Your task to perform on an android device: open app "Yahoo Mail" (install if not already installed) Image 0: 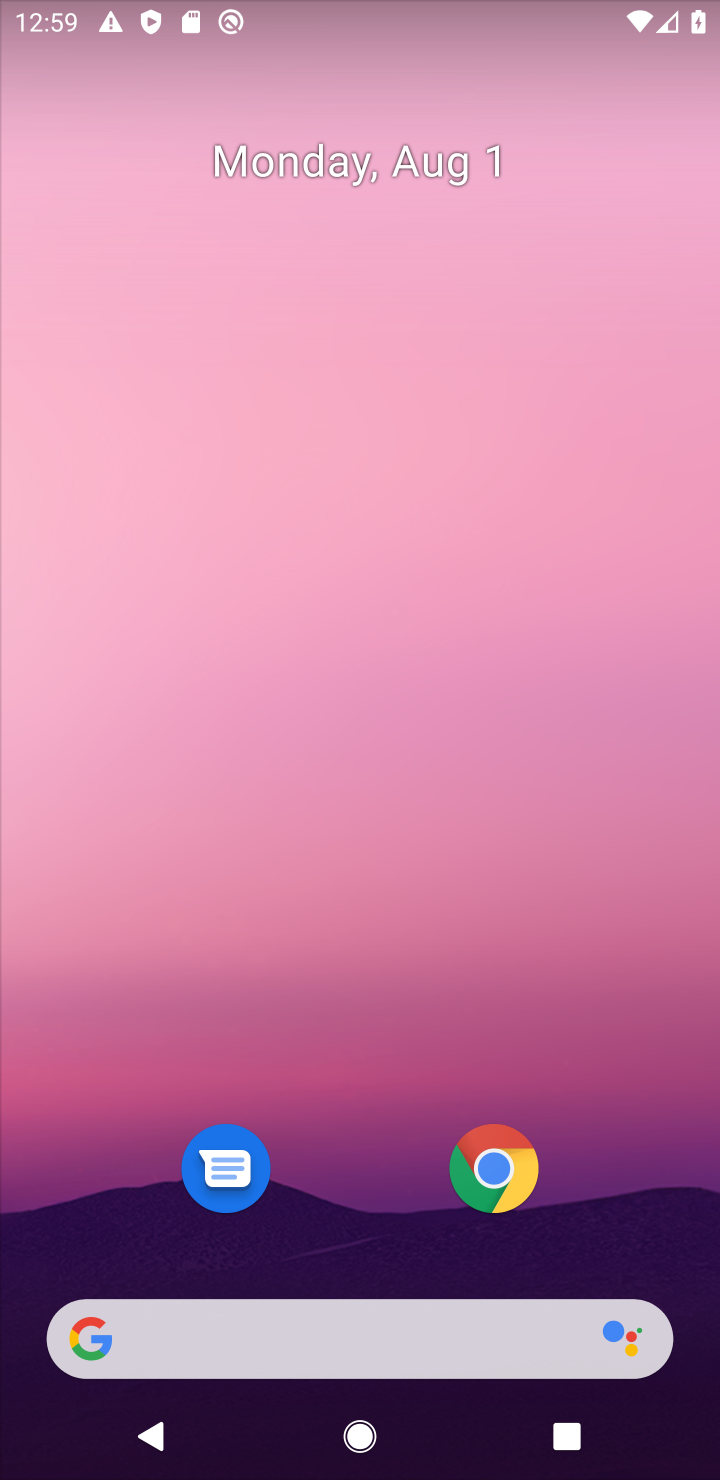
Step 0: drag from (331, 1208) to (381, 13)
Your task to perform on an android device: open app "Yahoo Mail" (install if not already installed) Image 1: 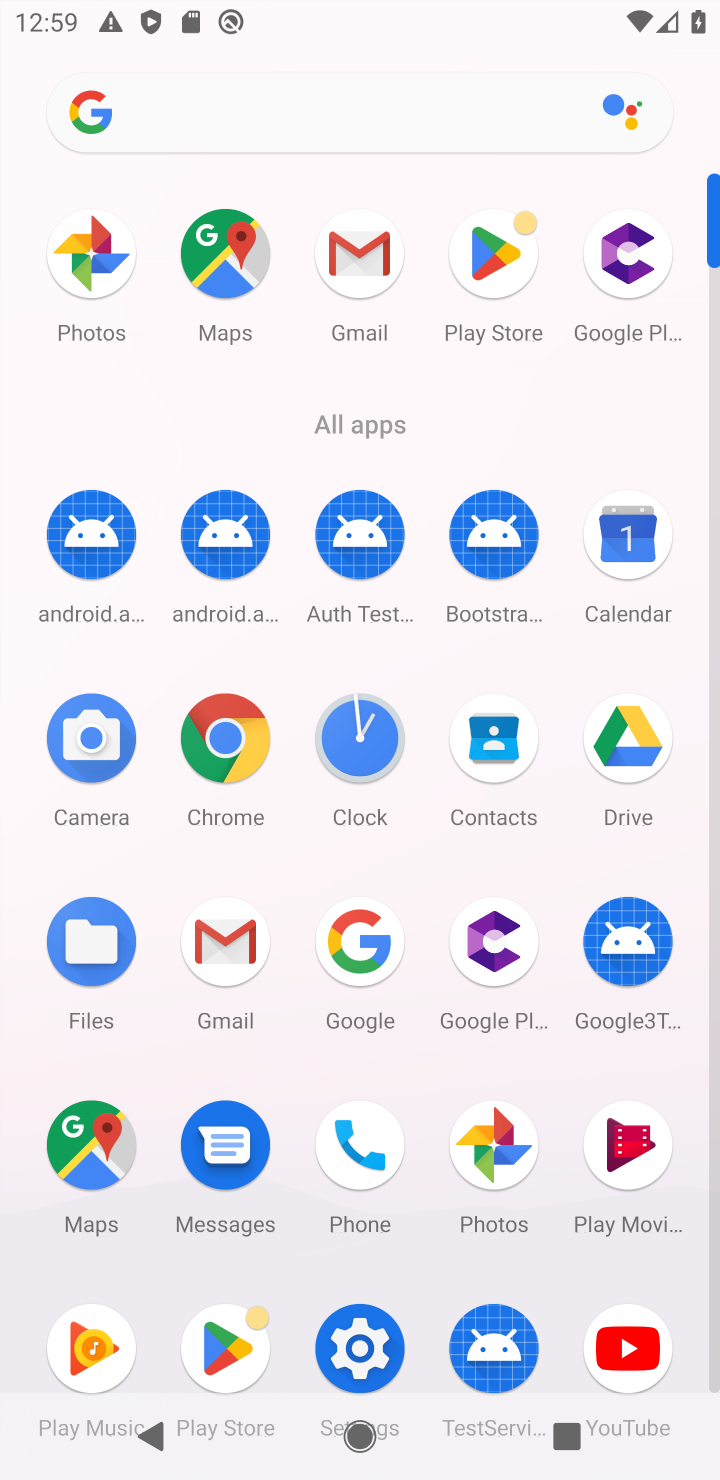
Step 1: click (485, 280)
Your task to perform on an android device: open app "Yahoo Mail" (install if not already installed) Image 2: 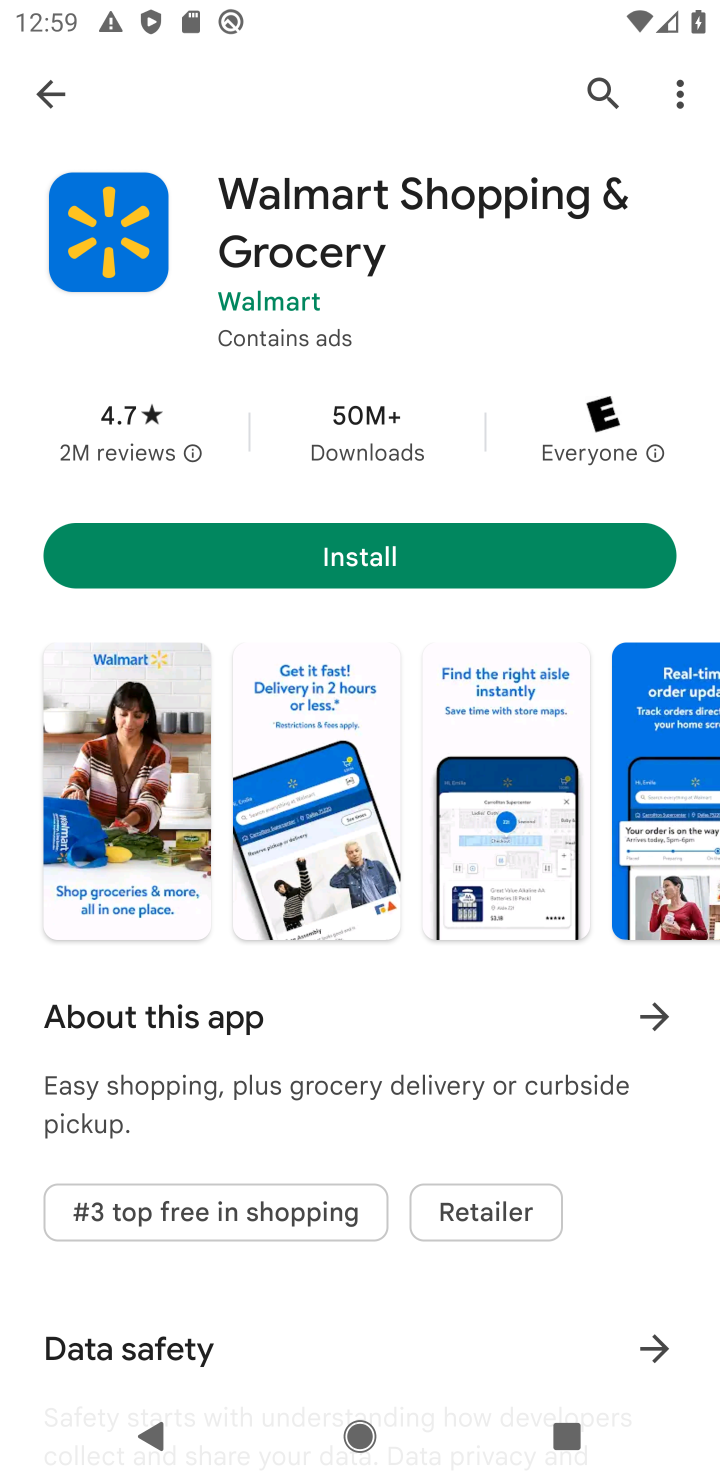
Step 2: click (593, 102)
Your task to perform on an android device: open app "Yahoo Mail" (install if not already installed) Image 3: 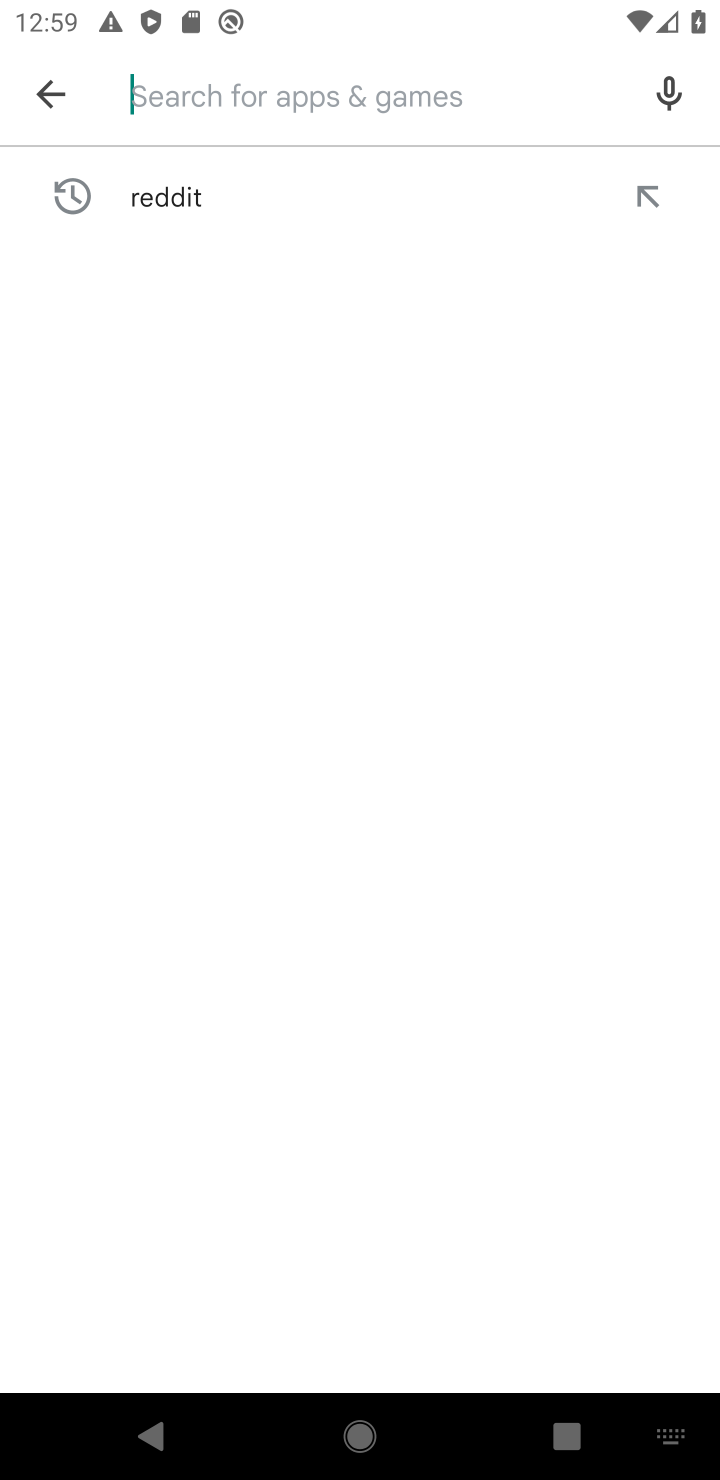
Step 3: type "yahoo mail"
Your task to perform on an android device: open app "Yahoo Mail" (install if not already installed) Image 4: 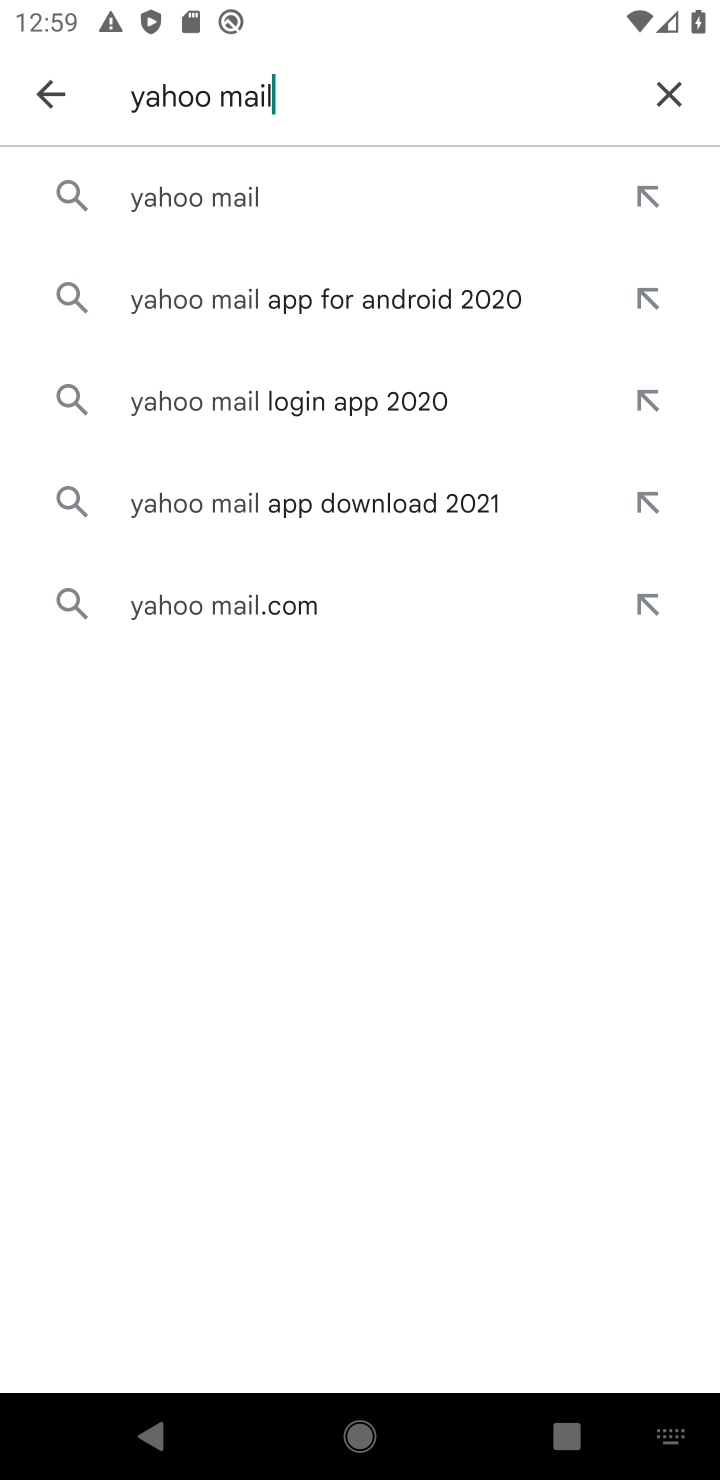
Step 4: click (375, 188)
Your task to perform on an android device: open app "Yahoo Mail" (install if not already installed) Image 5: 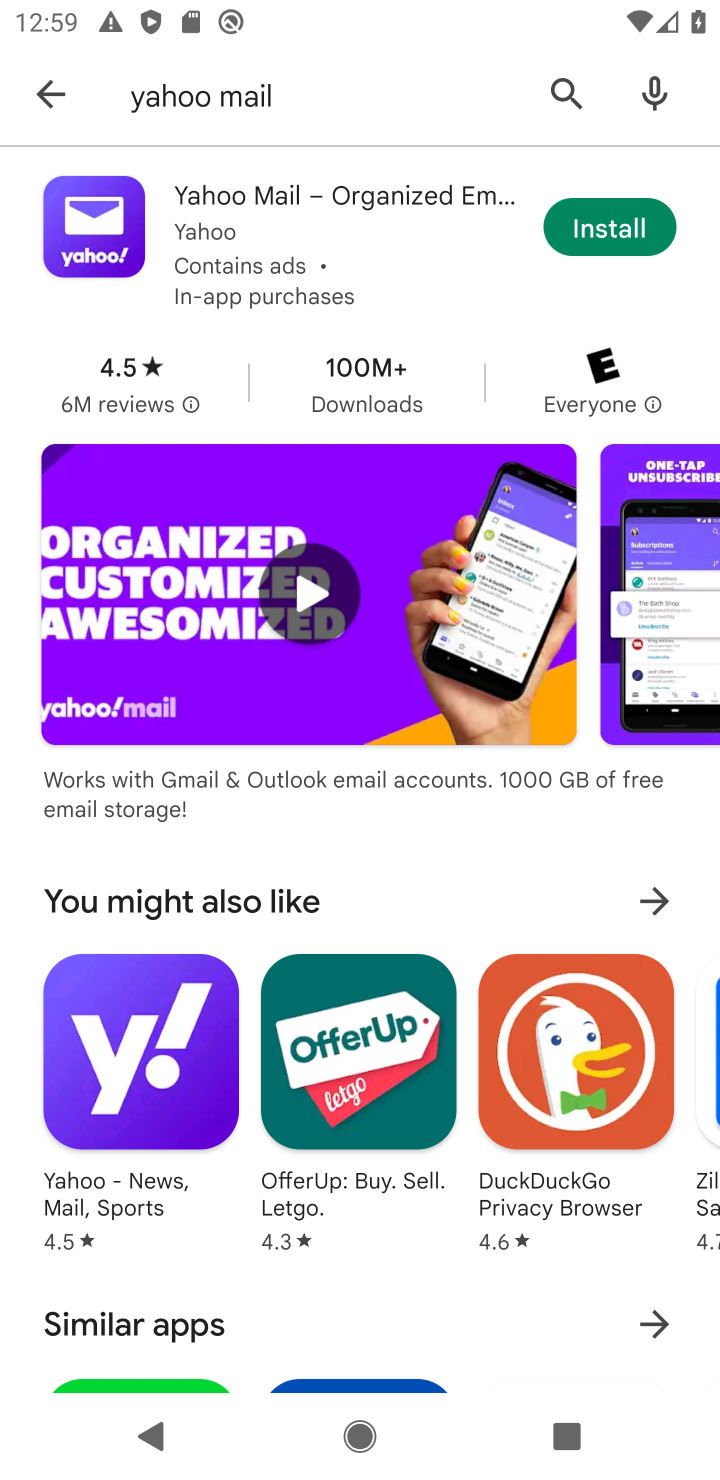
Step 5: click (305, 197)
Your task to perform on an android device: open app "Yahoo Mail" (install if not already installed) Image 6: 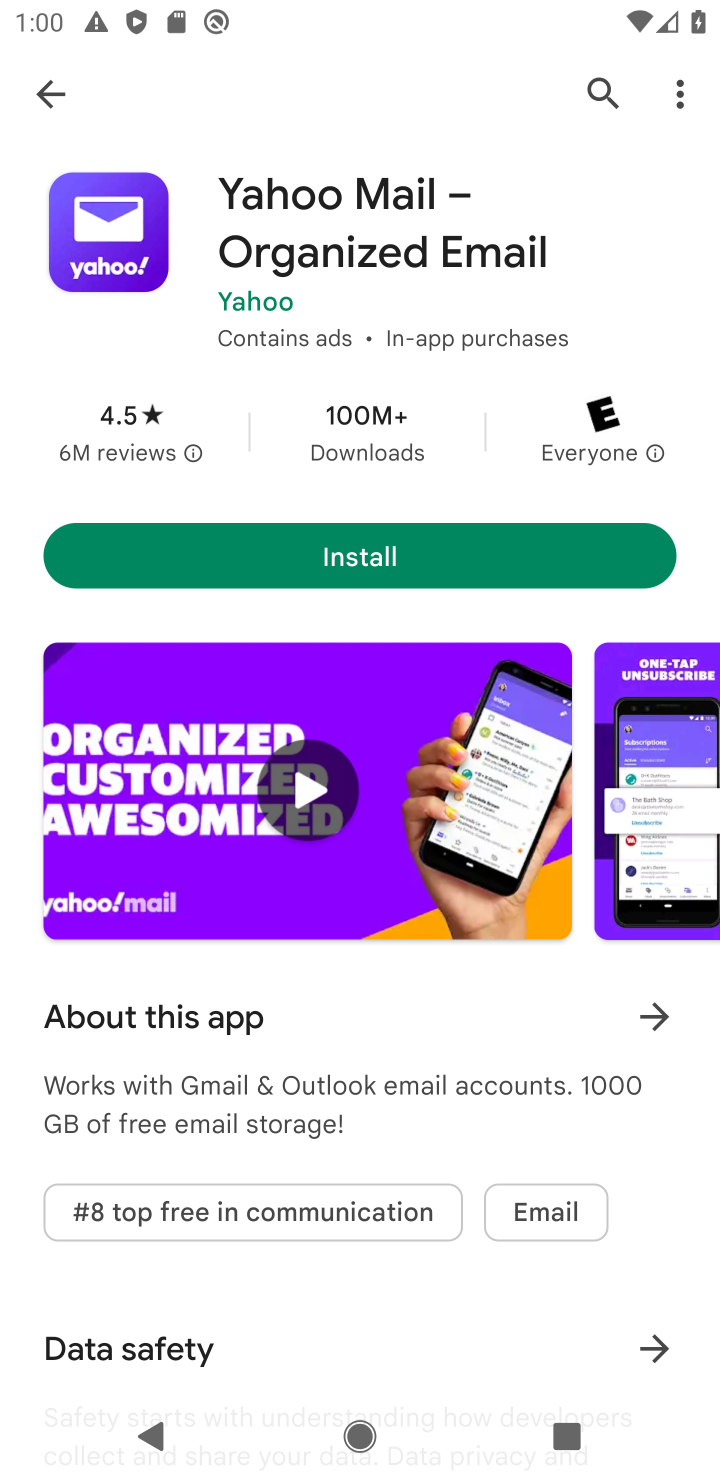
Step 6: click (405, 542)
Your task to perform on an android device: open app "Yahoo Mail" (install if not already installed) Image 7: 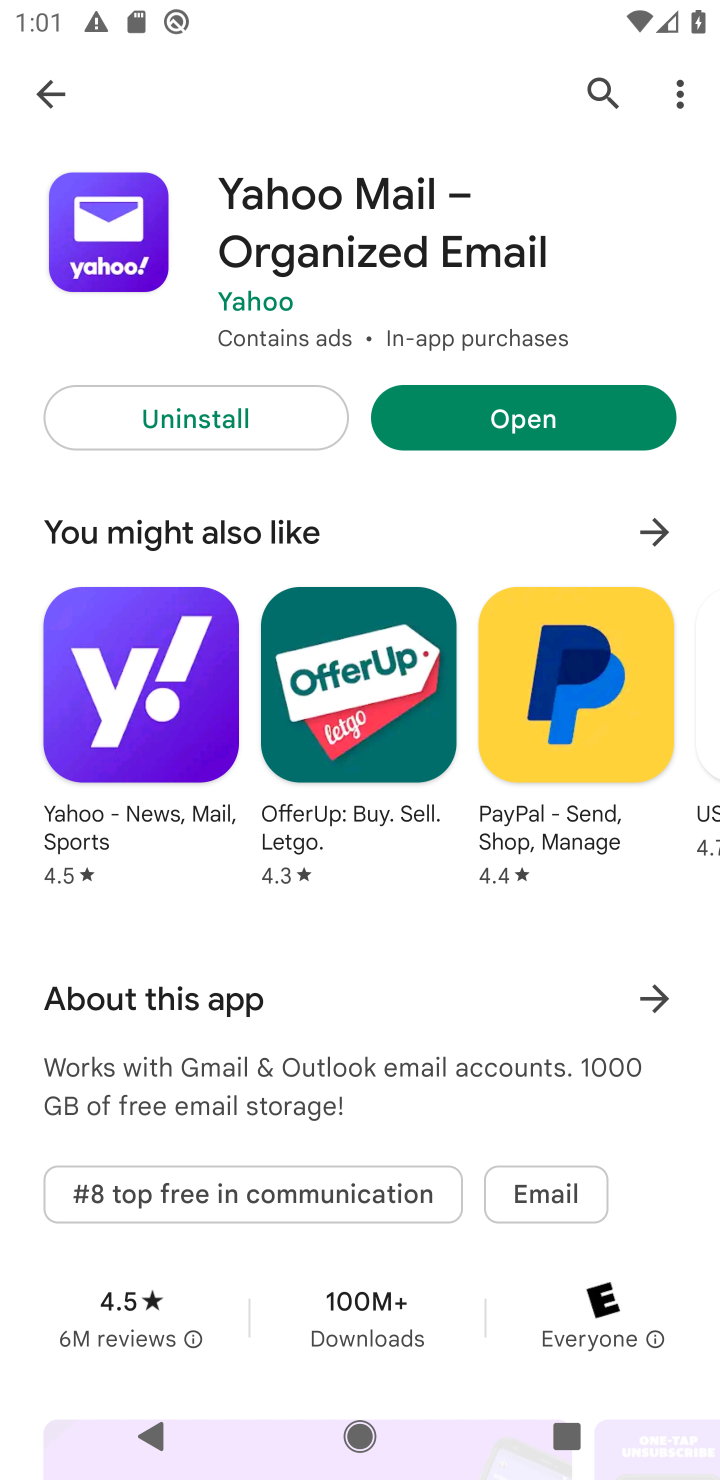
Step 7: click (599, 397)
Your task to perform on an android device: open app "Yahoo Mail" (install if not already installed) Image 8: 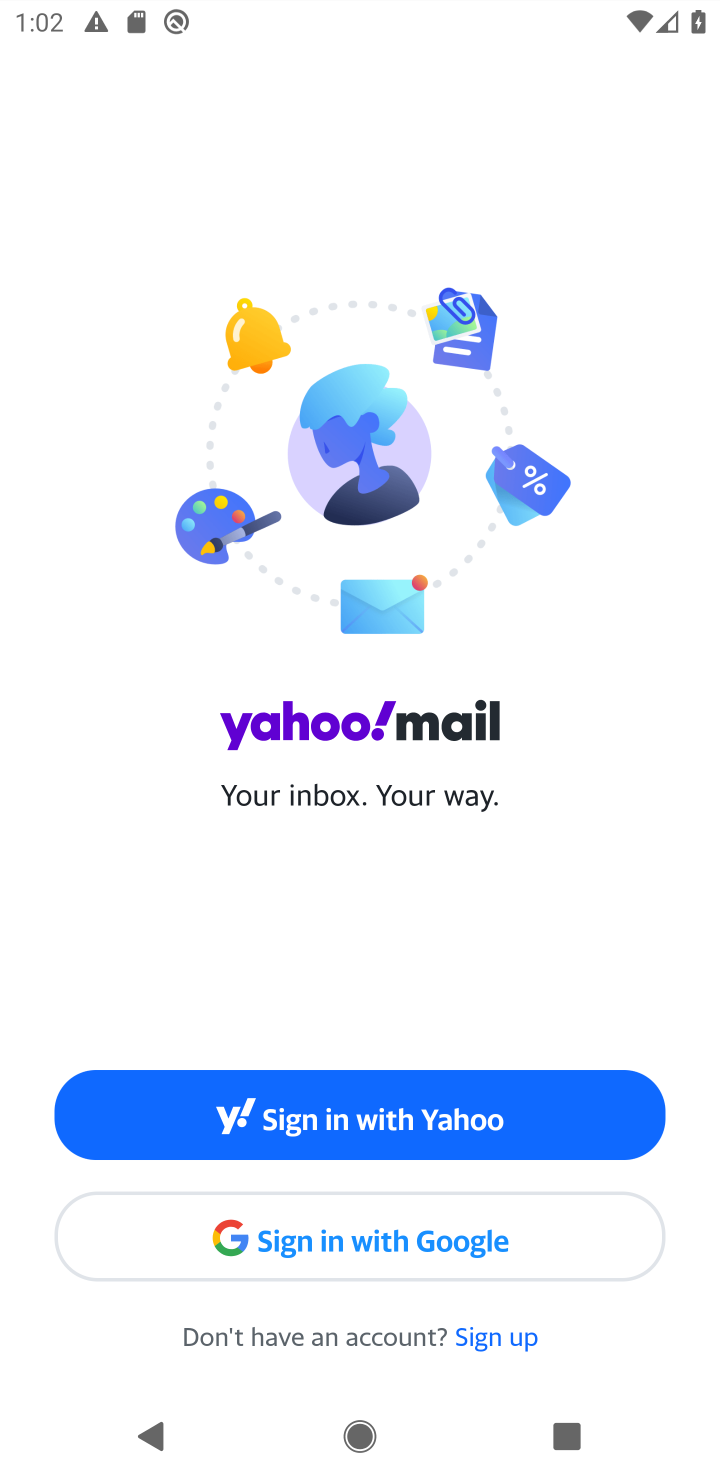
Step 8: task complete